Your task to perform on an android device: Go to calendar. Show me events next week Image 0: 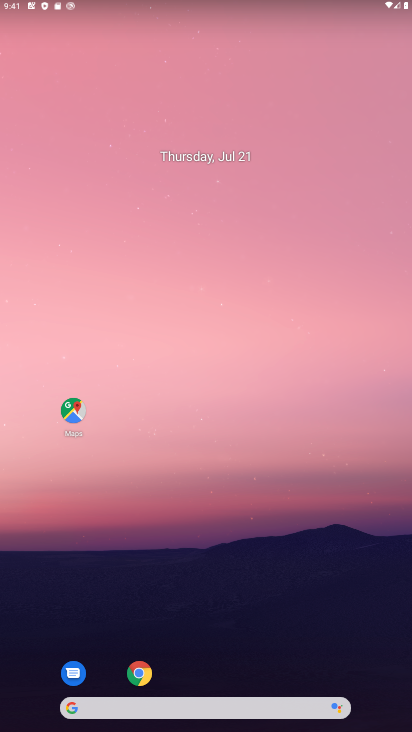
Step 0: drag from (197, 516) to (27, 335)
Your task to perform on an android device: Go to calendar. Show me events next week Image 1: 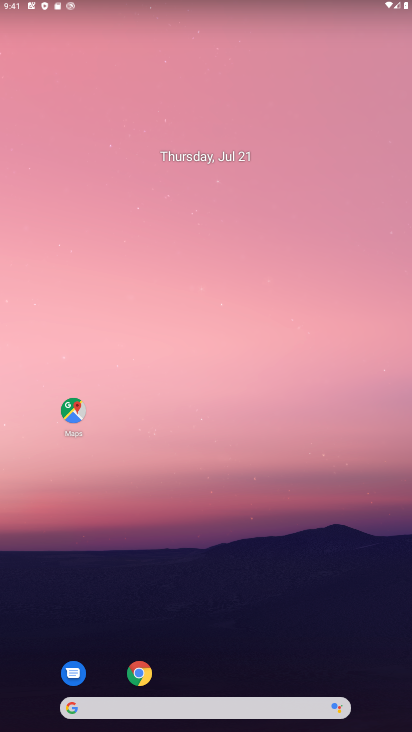
Step 1: drag from (170, 666) to (5, 528)
Your task to perform on an android device: Go to calendar. Show me events next week Image 2: 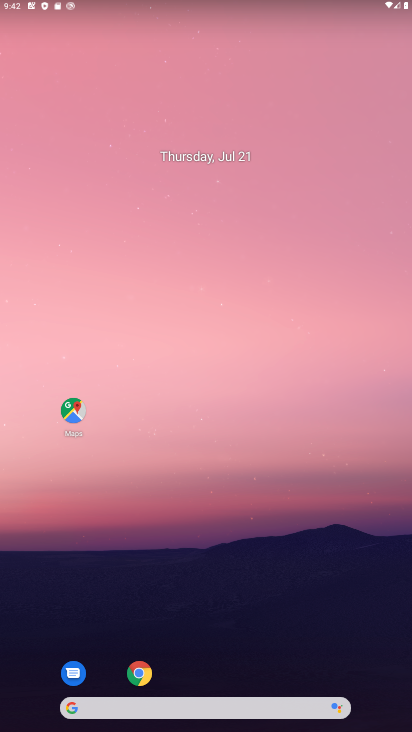
Step 2: drag from (185, 571) to (224, 16)
Your task to perform on an android device: Go to calendar. Show me events next week Image 3: 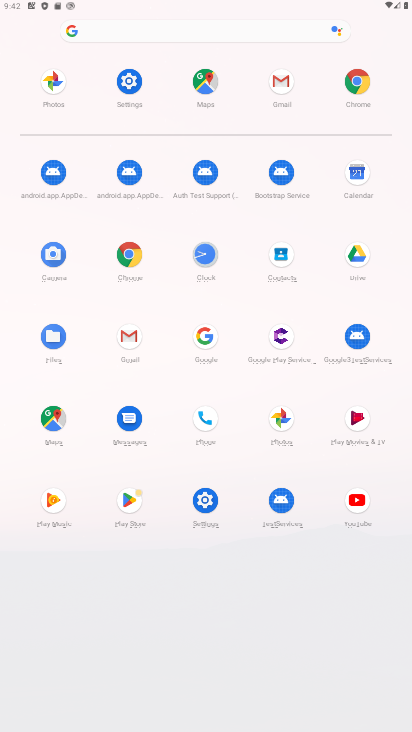
Step 3: click (352, 173)
Your task to perform on an android device: Go to calendar. Show me events next week Image 4: 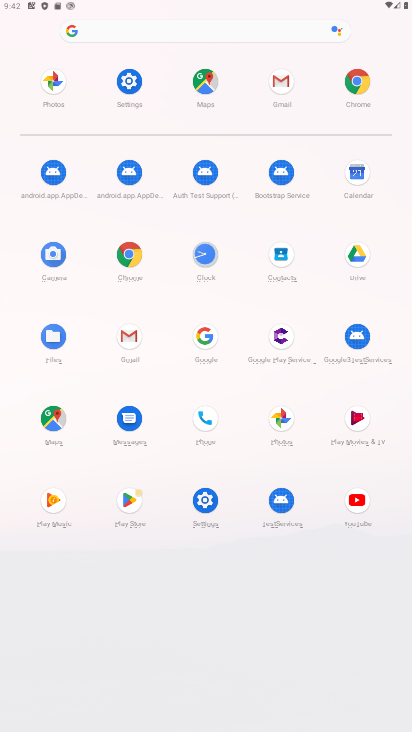
Step 4: click (350, 173)
Your task to perform on an android device: Go to calendar. Show me events next week Image 5: 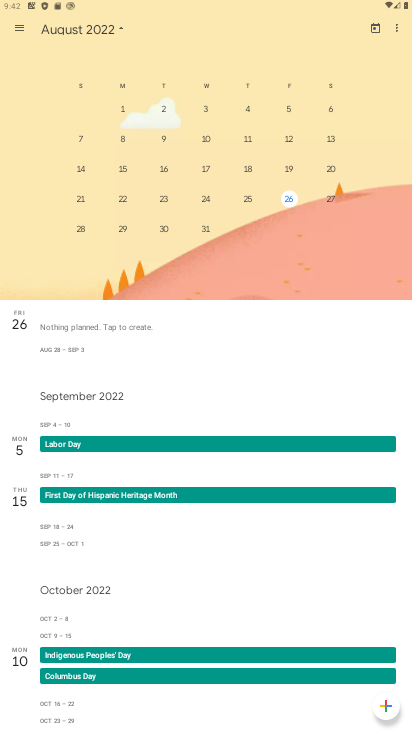
Step 5: click (378, 27)
Your task to perform on an android device: Go to calendar. Show me events next week Image 6: 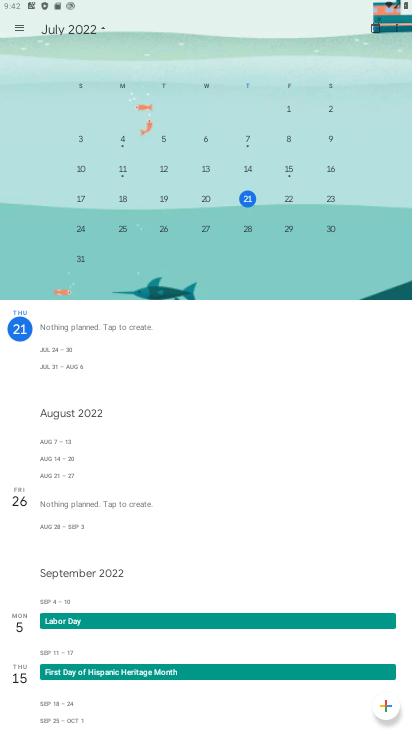
Step 6: click (242, 231)
Your task to perform on an android device: Go to calendar. Show me events next week Image 7: 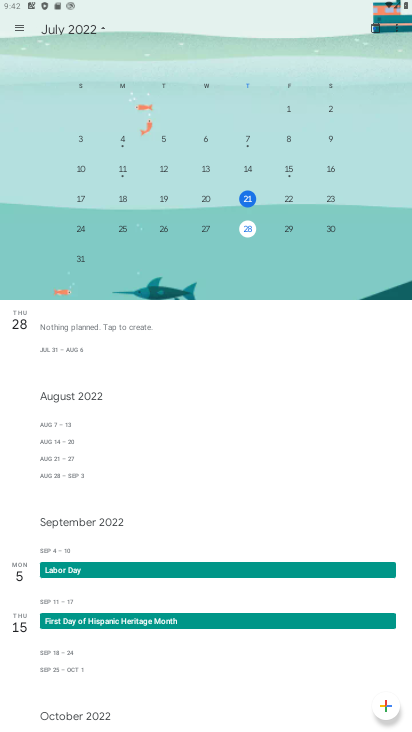
Step 7: task complete